Your task to perform on an android device: turn on bluetooth scan Image 0: 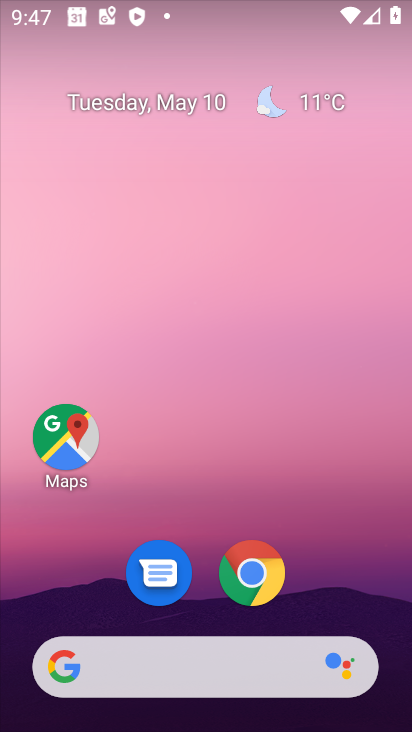
Step 0: drag from (355, 609) to (368, 6)
Your task to perform on an android device: turn on bluetooth scan Image 1: 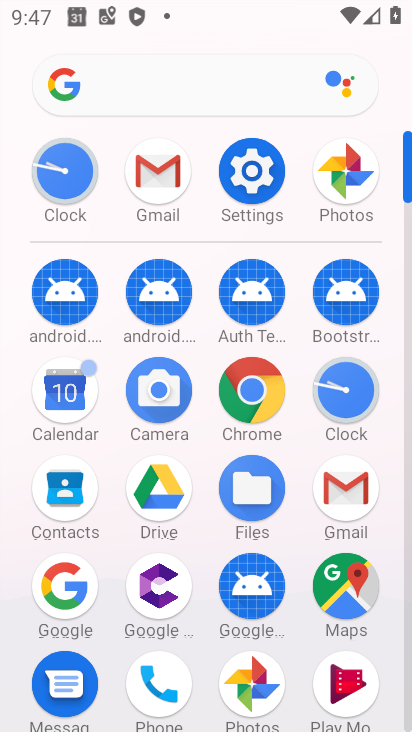
Step 1: click (255, 175)
Your task to perform on an android device: turn on bluetooth scan Image 2: 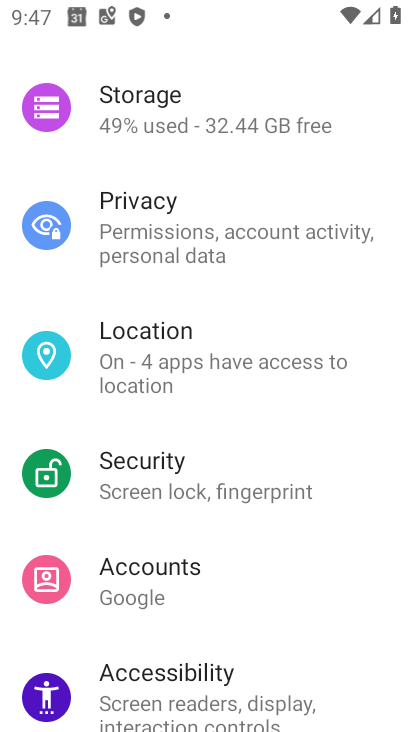
Step 2: click (370, 653)
Your task to perform on an android device: turn on bluetooth scan Image 3: 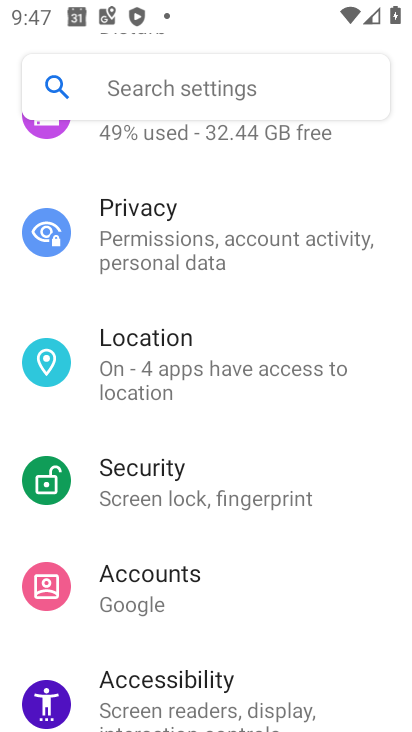
Step 3: click (187, 376)
Your task to perform on an android device: turn on bluetooth scan Image 4: 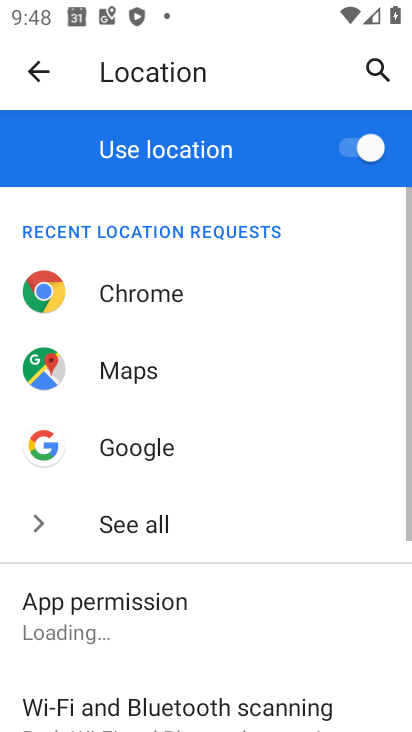
Step 4: drag from (250, 617) to (259, 277)
Your task to perform on an android device: turn on bluetooth scan Image 5: 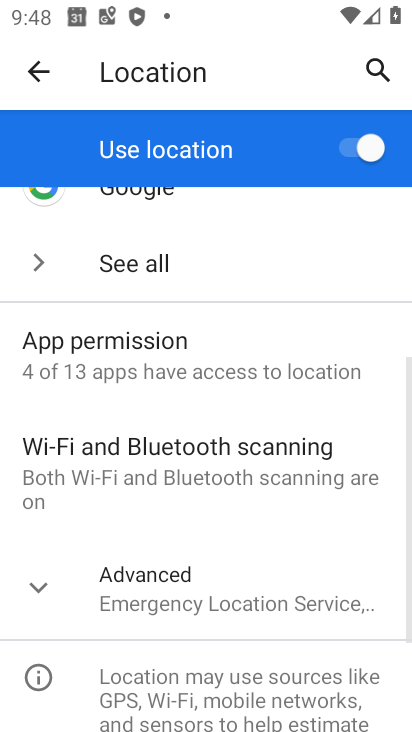
Step 5: click (140, 486)
Your task to perform on an android device: turn on bluetooth scan Image 6: 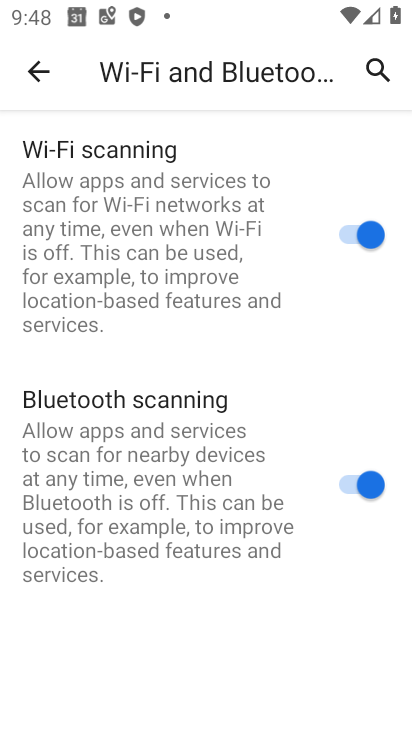
Step 6: task complete